Your task to perform on an android device: Go to wifi settings Image 0: 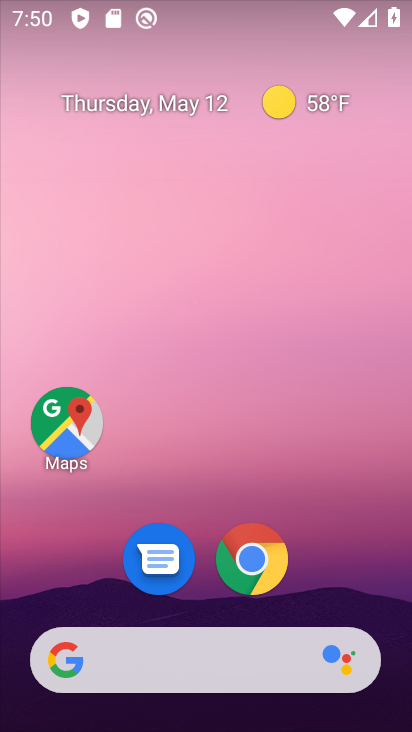
Step 0: drag from (354, 589) to (242, 25)
Your task to perform on an android device: Go to wifi settings Image 1: 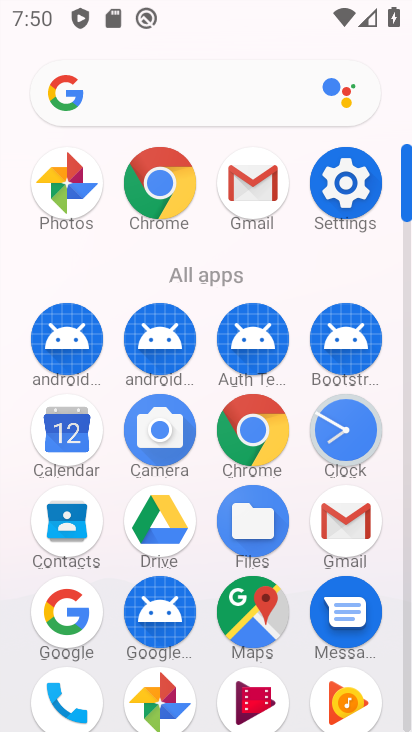
Step 1: click (346, 183)
Your task to perform on an android device: Go to wifi settings Image 2: 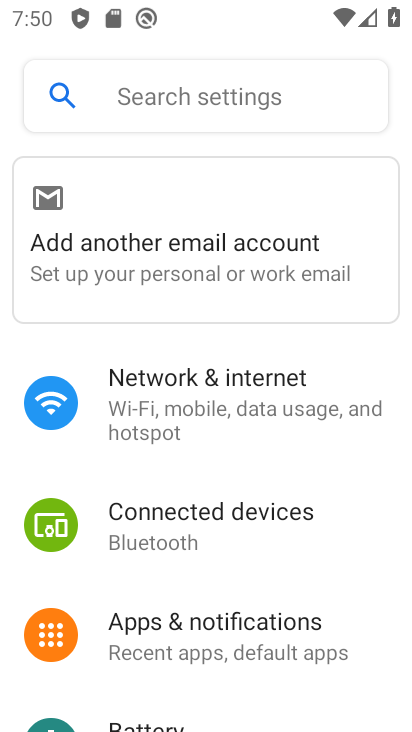
Step 2: click (196, 394)
Your task to perform on an android device: Go to wifi settings Image 3: 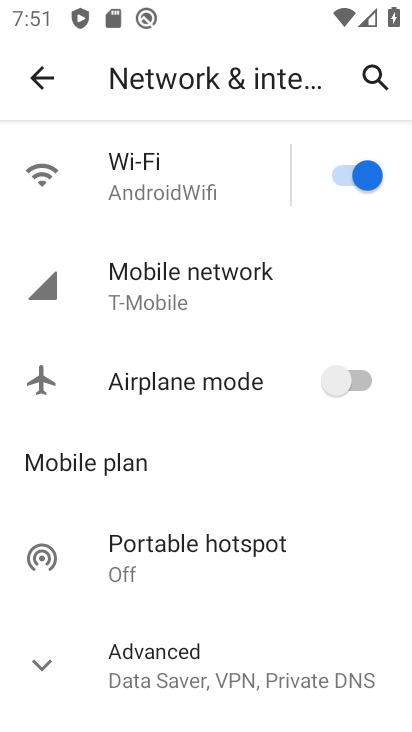
Step 3: click (146, 187)
Your task to perform on an android device: Go to wifi settings Image 4: 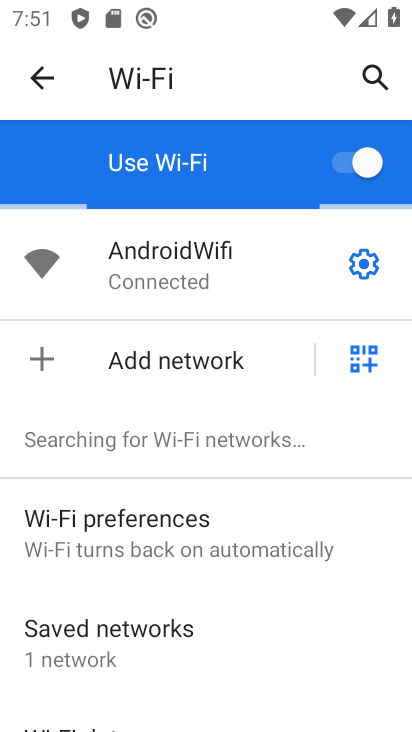
Step 4: click (362, 262)
Your task to perform on an android device: Go to wifi settings Image 5: 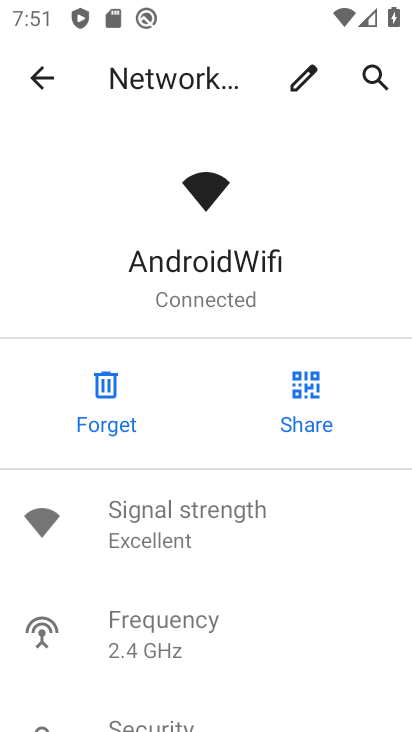
Step 5: task complete